Your task to perform on an android device: change alarm snooze length Image 0: 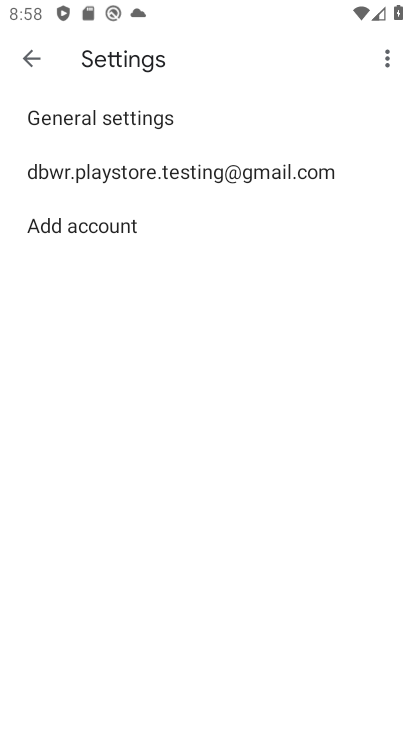
Step 0: press home button
Your task to perform on an android device: change alarm snooze length Image 1: 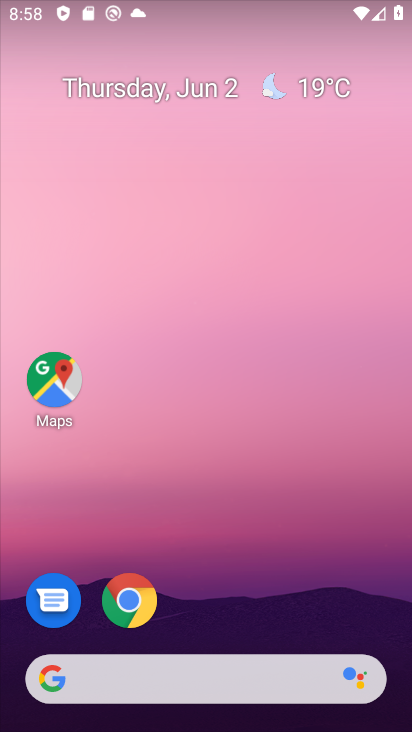
Step 1: drag from (228, 623) to (243, 226)
Your task to perform on an android device: change alarm snooze length Image 2: 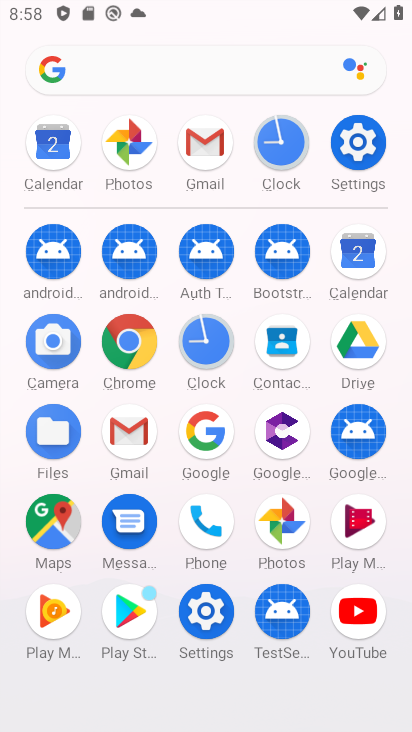
Step 2: click (296, 156)
Your task to perform on an android device: change alarm snooze length Image 3: 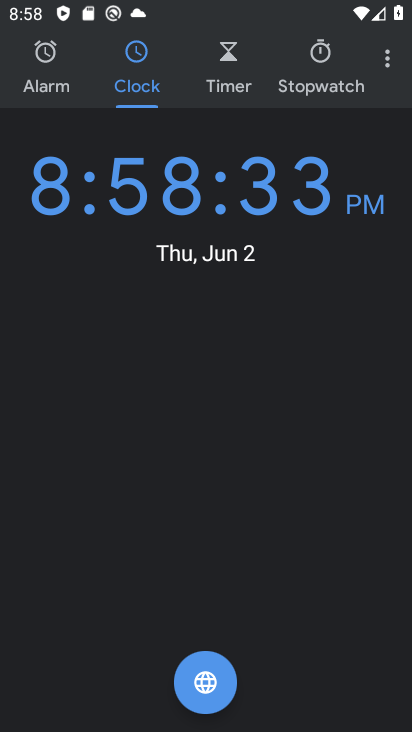
Step 3: click (383, 67)
Your task to perform on an android device: change alarm snooze length Image 4: 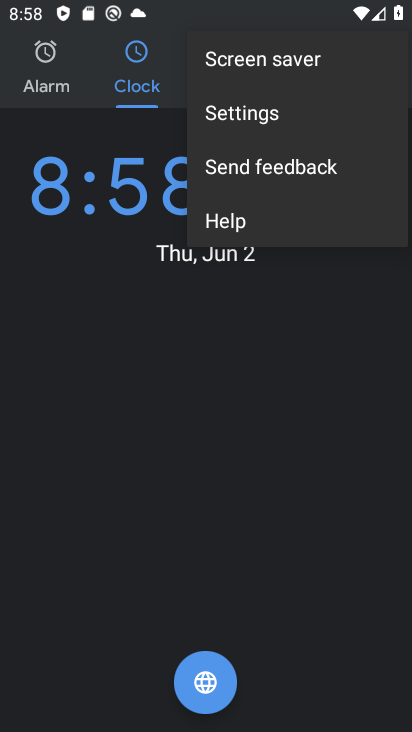
Step 4: click (308, 108)
Your task to perform on an android device: change alarm snooze length Image 5: 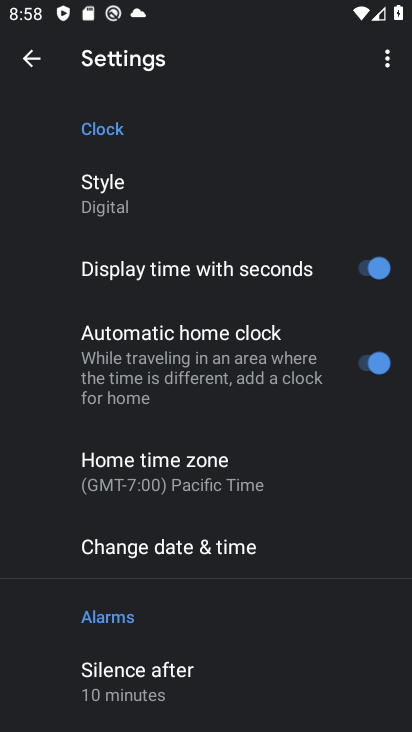
Step 5: drag from (244, 635) to (272, 444)
Your task to perform on an android device: change alarm snooze length Image 6: 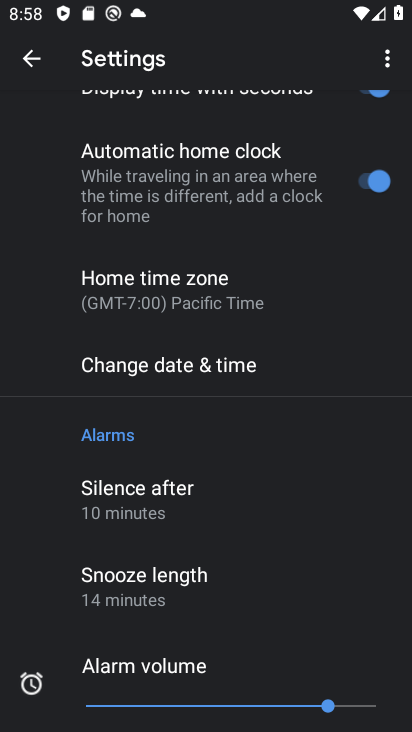
Step 6: click (234, 592)
Your task to perform on an android device: change alarm snooze length Image 7: 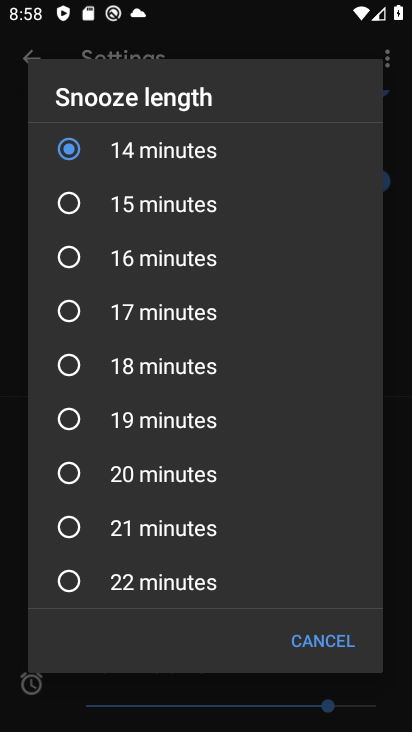
Step 7: click (177, 359)
Your task to perform on an android device: change alarm snooze length Image 8: 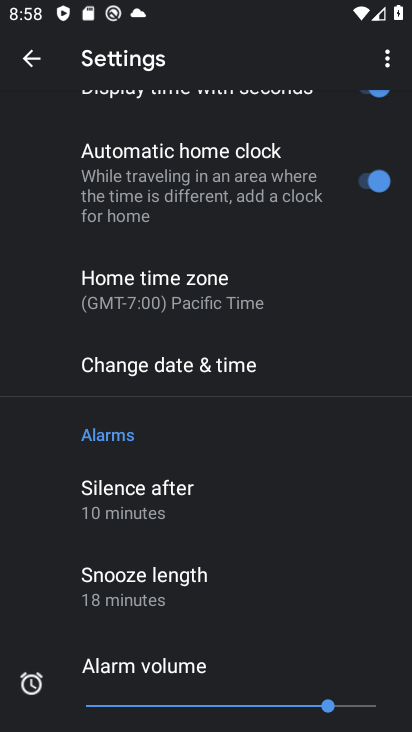
Step 8: task complete